Your task to perform on an android device: Open Youtube and go to "Your channel" Image 0: 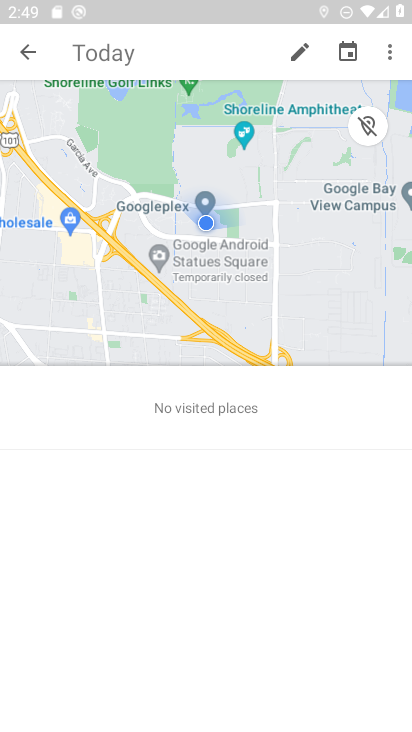
Step 0: press home button
Your task to perform on an android device: Open Youtube and go to "Your channel" Image 1: 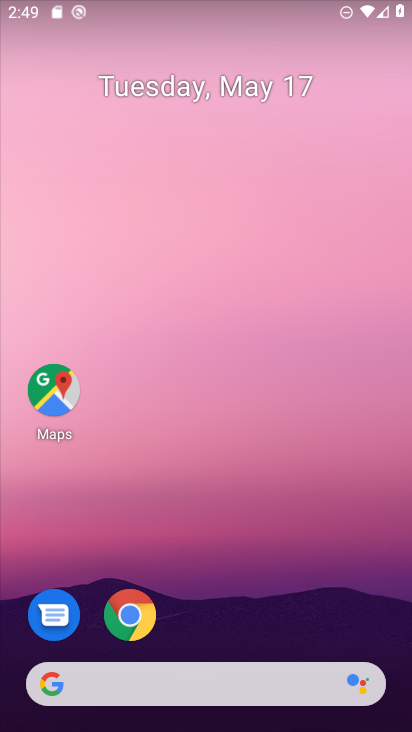
Step 1: drag from (230, 724) to (226, 180)
Your task to perform on an android device: Open Youtube and go to "Your channel" Image 2: 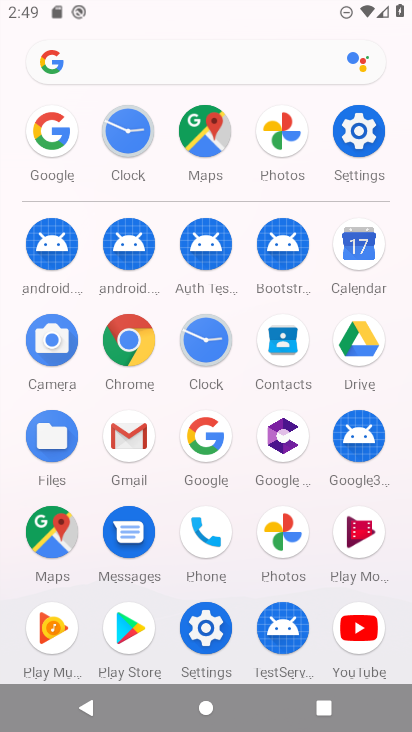
Step 2: click (363, 629)
Your task to perform on an android device: Open Youtube and go to "Your channel" Image 3: 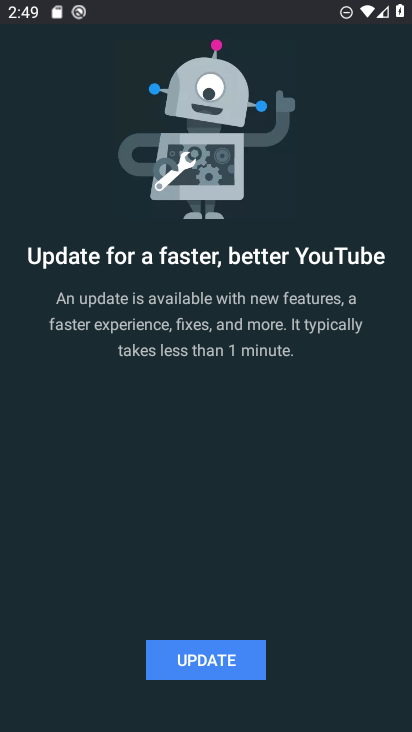
Step 3: task complete